Your task to perform on an android device: turn off notifications settings in the gmail app Image 0: 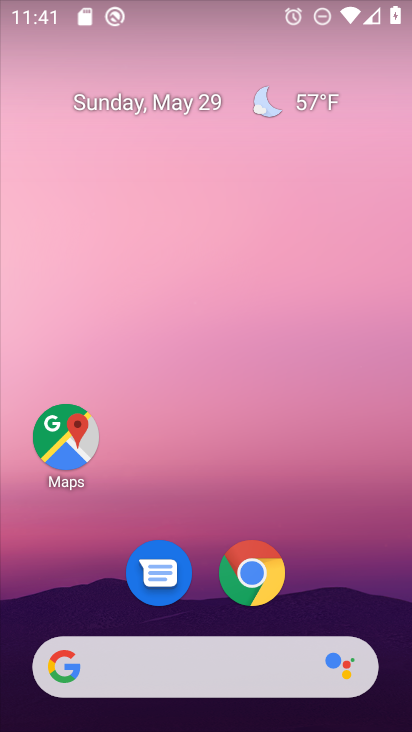
Step 0: drag from (263, 676) to (307, 64)
Your task to perform on an android device: turn off notifications settings in the gmail app Image 1: 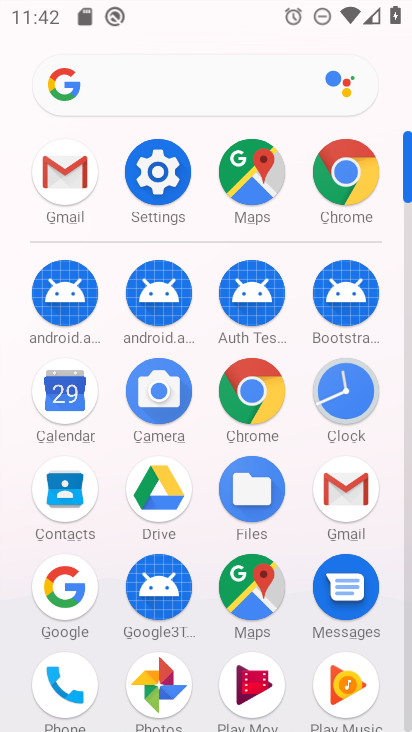
Step 1: click (356, 480)
Your task to perform on an android device: turn off notifications settings in the gmail app Image 2: 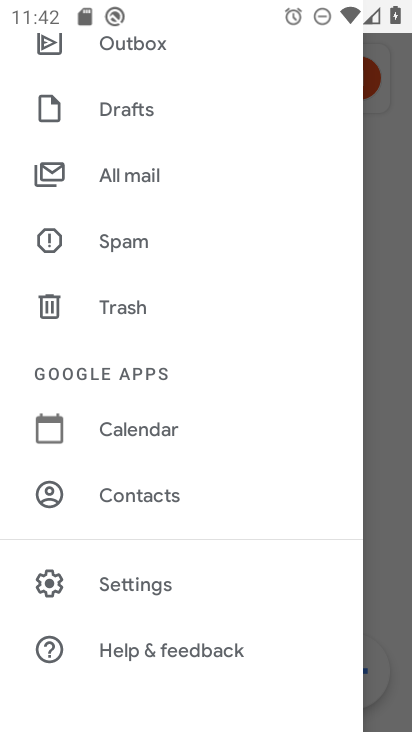
Step 2: drag from (127, 319) to (289, 204)
Your task to perform on an android device: turn off notifications settings in the gmail app Image 3: 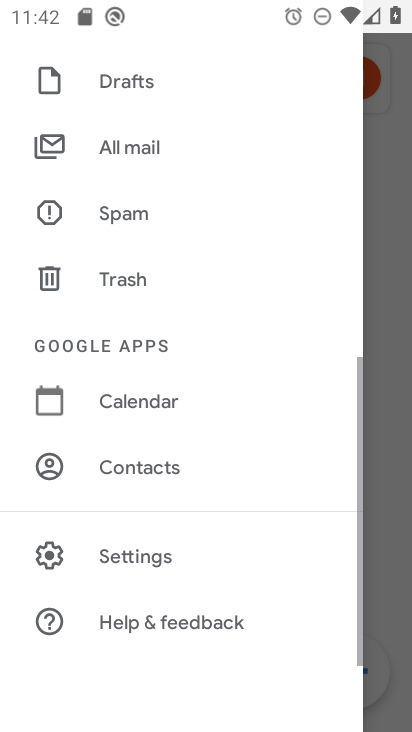
Step 3: click (178, 549)
Your task to perform on an android device: turn off notifications settings in the gmail app Image 4: 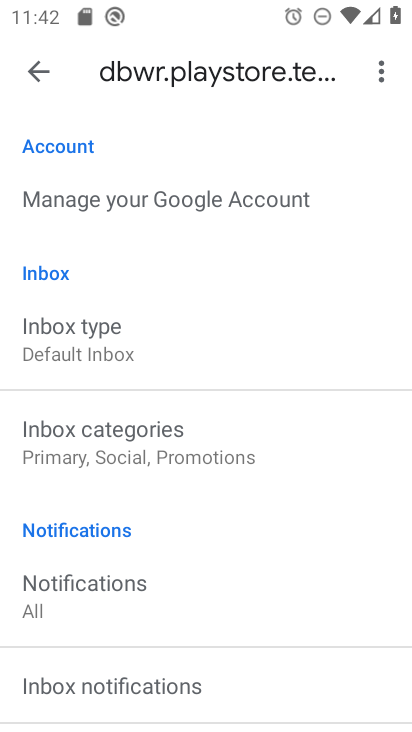
Step 4: drag from (183, 545) to (185, 14)
Your task to perform on an android device: turn off notifications settings in the gmail app Image 5: 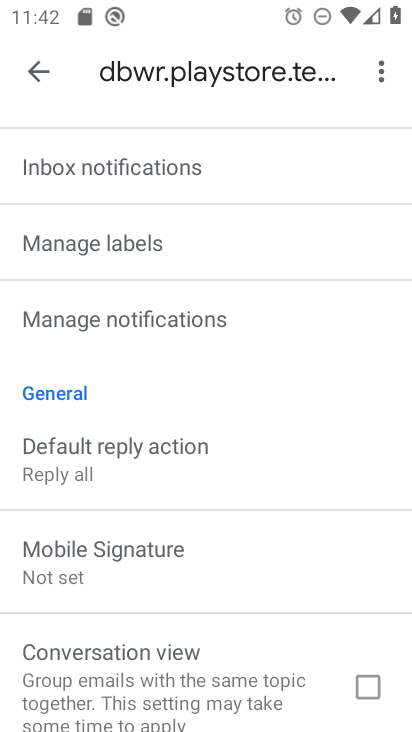
Step 5: click (184, 301)
Your task to perform on an android device: turn off notifications settings in the gmail app Image 6: 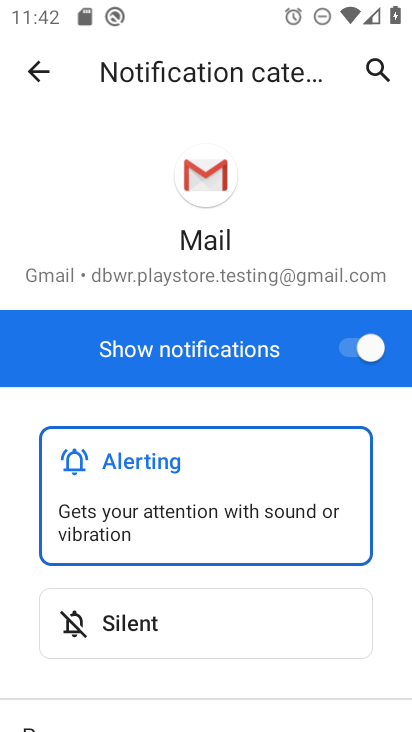
Step 6: click (360, 344)
Your task to perform on an android device: turn off notifications settings in the gmail app Image 7: 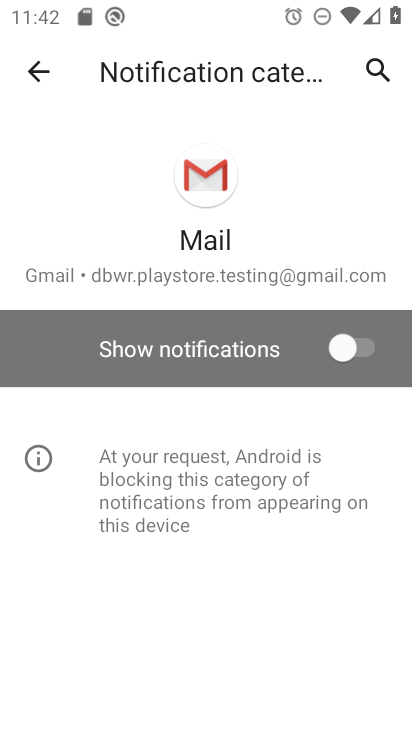
Step 7: task complete